Your task to perform on an android device: Go to notification settings Image 0: 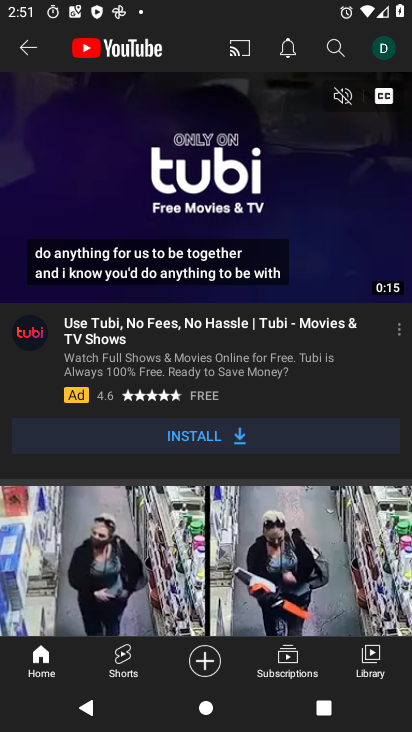
Step 0: press home button
Your task to perform on an android device: Go to notification settings Image 1: 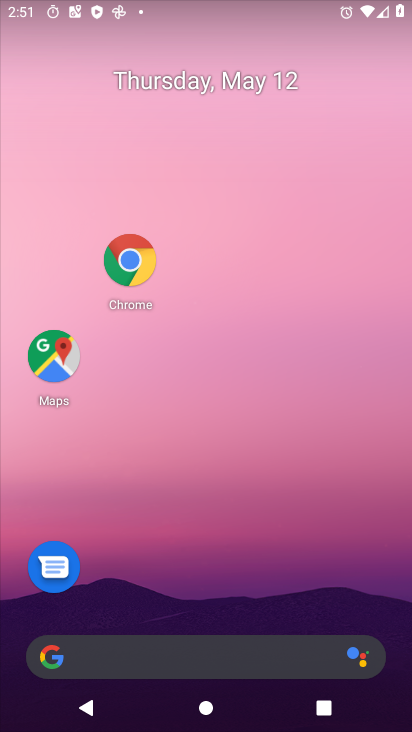
Step 1: drag from (192, 627) to (170, 251)
Your task to perform on an android device: Go to notification settings Image 2: 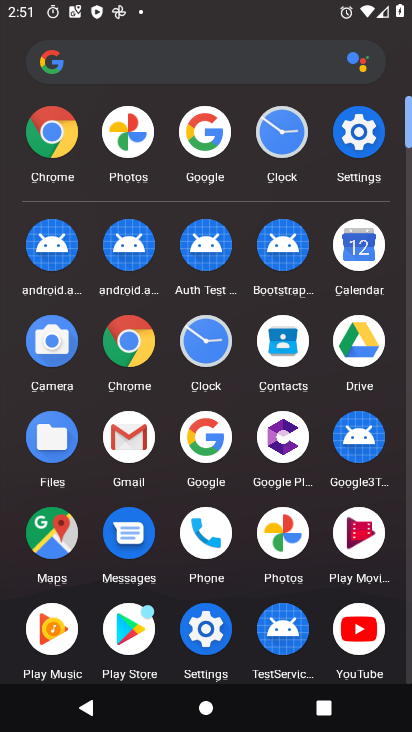
Step 2: click (201, 639)
Your task to perform on an android device: Go to notification settings Image 3: 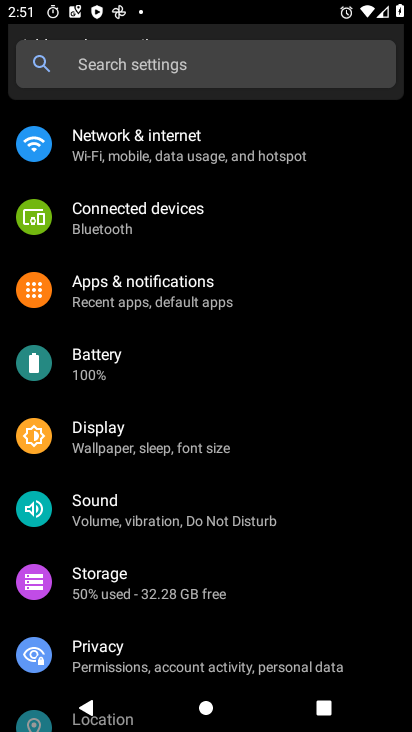
Step 3: click (162, 296)
Your task to perform on an android device: Go to notification settings Image 4: 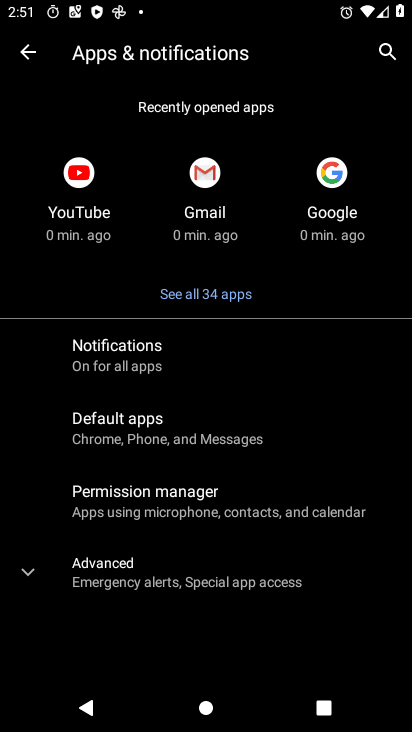
Step 4: click (117, 580)
Your task to perform on an android device: Go to notification settings Image 5: 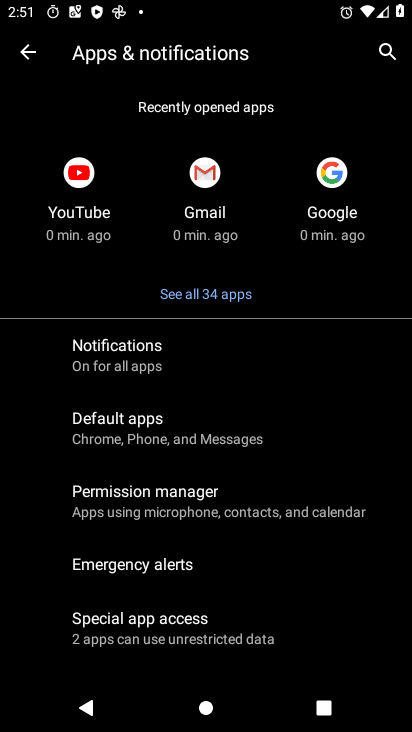
Step 5: task complete